Your task to perform on an android device: change your default location settings in chrome Image 0: 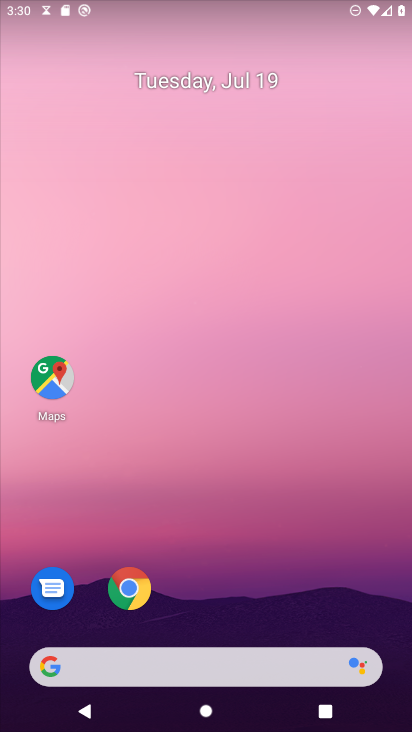
Step 0: click (117, 585)
Your task to perform on an android device: change your default location settings in chrome Image 1: 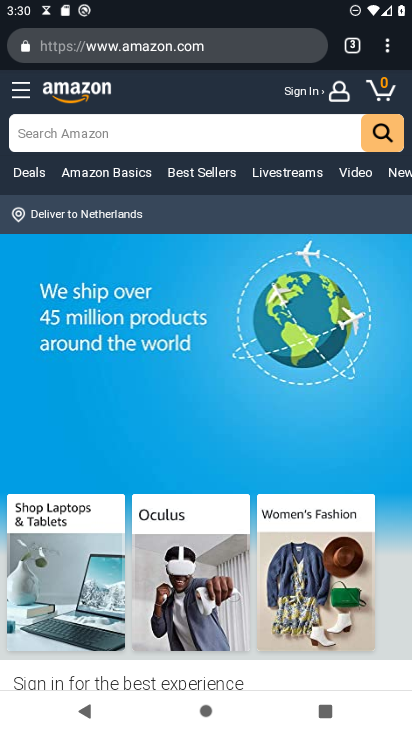
Step 1: click (386, 50)
Your task to perform on an android device: change your default location settings in chrome Image 2: 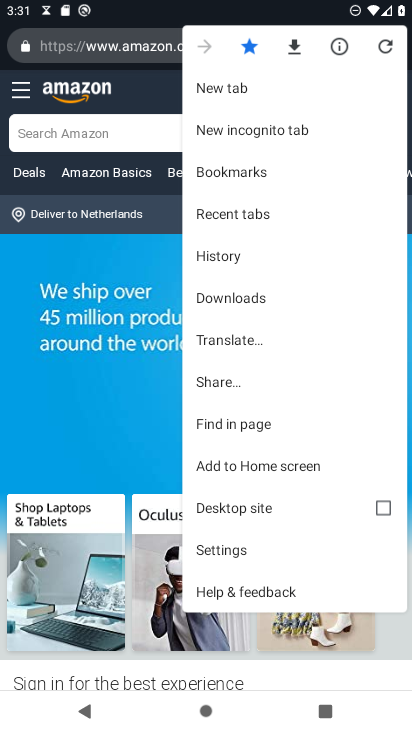
Step 2: click (217, 548)
Your task to perform on an android device: change your default location settings in chrome Image 3: 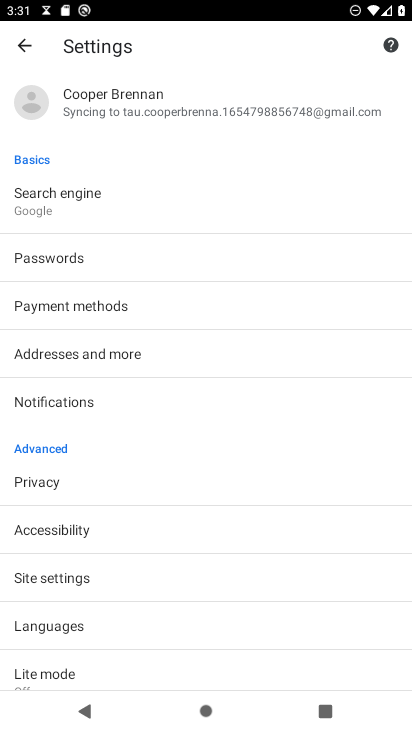
Step 3: click (75, 575)
Your task to perform on an android device: change your default location settings in chrome Image 4: 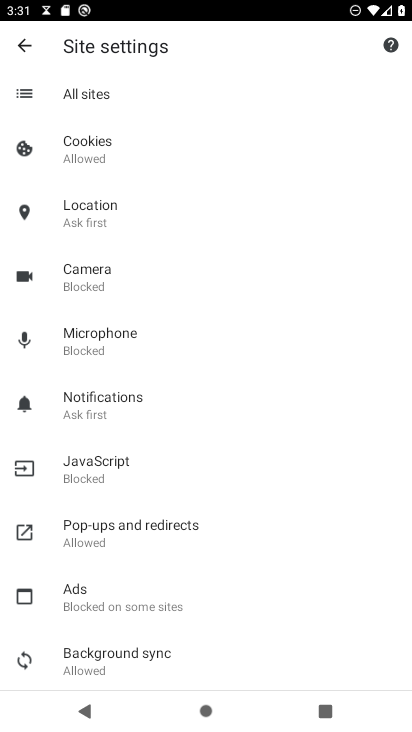
Step 4: click (118, 209)
Your task to perform on an android device: change your default location settings in chrome Image 5: 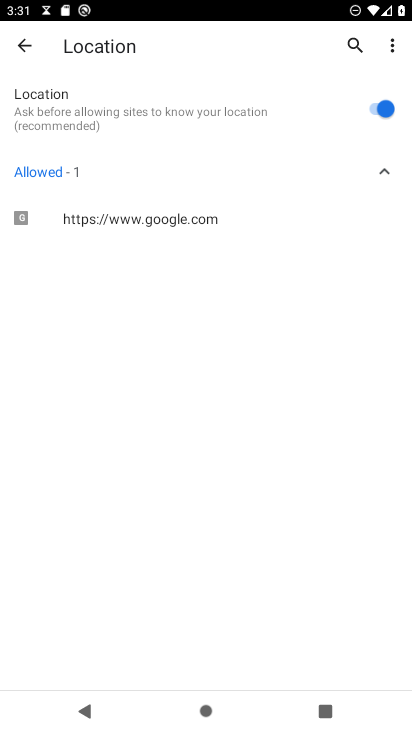
Step 5: click (375, 111)
Your task to perform on an android device: change your default location settings in chrome Image 6: 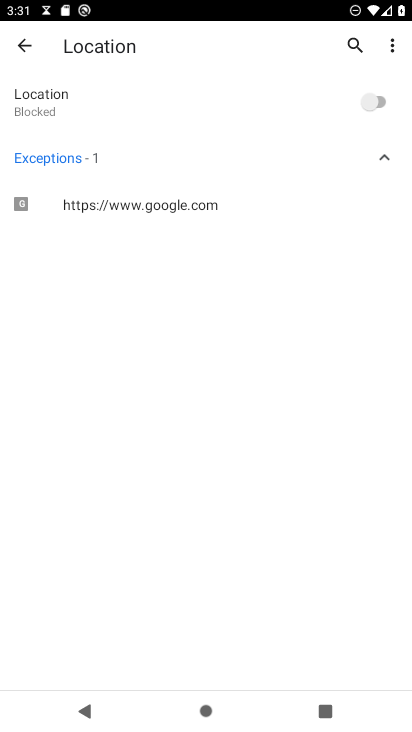
Step 6: task complete